Your task to perform on an android device: Open the calendar app, open the side menu, and click the "Day" option Image 0: 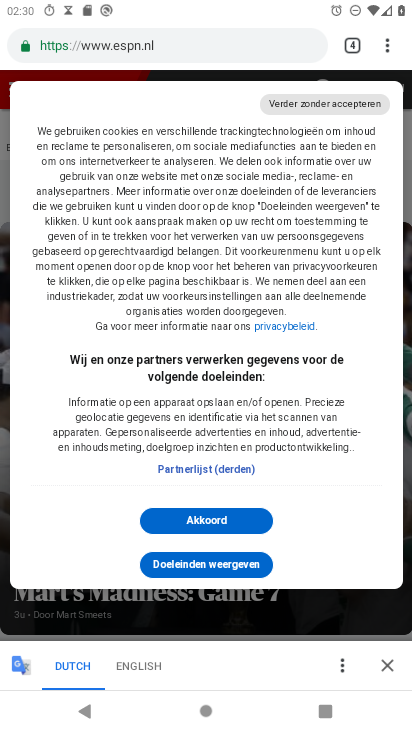
Step 0: press home button
Your task to perform on an android device: Open the calendar app, open the side menu, and click the "Day" option Image 1: 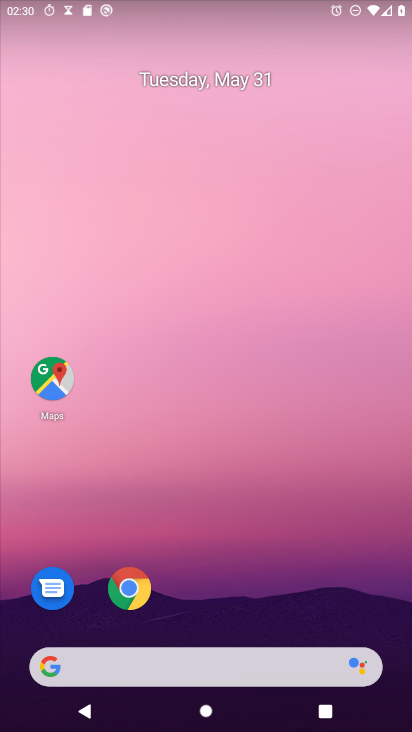
Step 1: drag from (279, 548) to (387, 45)
Your task to perform on an android device: Open the calendar app, open the side menu, and click the "Day" option Image 2: 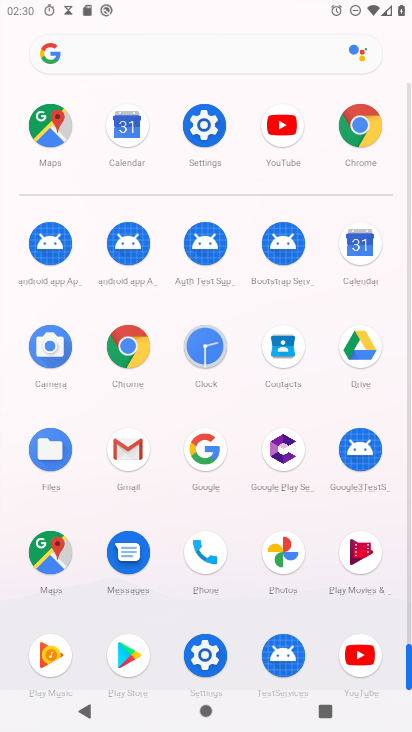
Step 2: click (374, 254)
Your task to perform on an android device: Open the calendar app, open the side menu, and click the "Day" option Image 3: 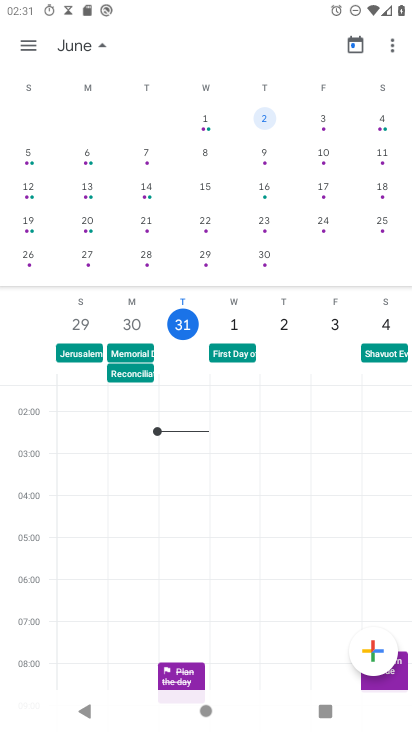
Step 3: click (28, 41)
Your task to perform on an android device: Open the calendar app, open the side menu, and click the "Day" option Image 4: 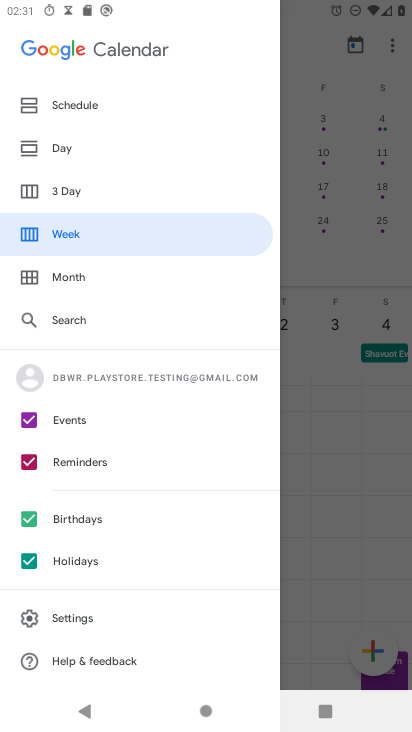
Step 4: click (76, 143)
Your task to perform on an android device: Open the calendar app, open the side menu, and click the "Day" option Image 5: 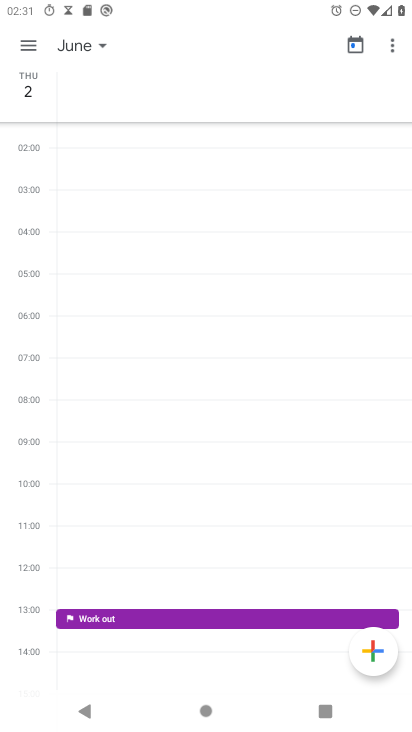
Step 5: task complete